Your task to perform on an android device: Play the latest video from the Wall Street Journal Image 0: 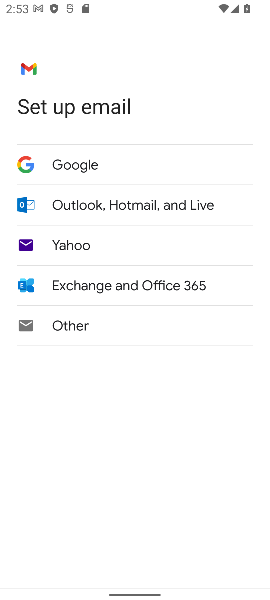
Step 0: press home button
Your task to perform on an android device: Play the latest video from the Wall Street Journal Image 1: 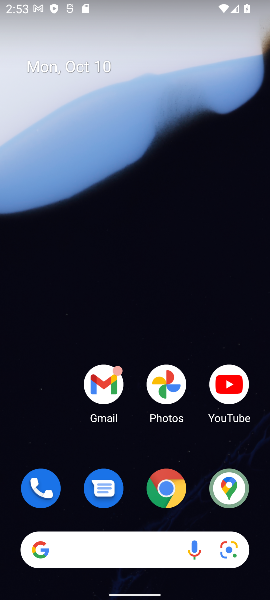
Step 1: click (246, 381)
Your task to perform on an android device: Play the latest video from the Wall Street Journal Image 2: 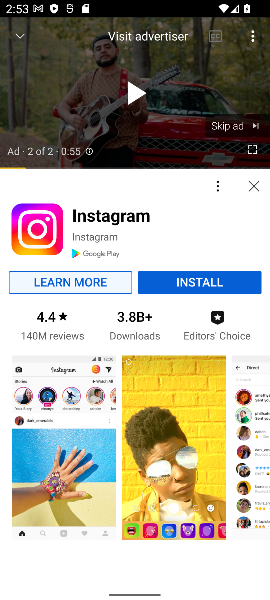
Step 2: click (15, 38)
Your task to perform on an android device: Play the latest video from the Wall Street Journal Image 3: 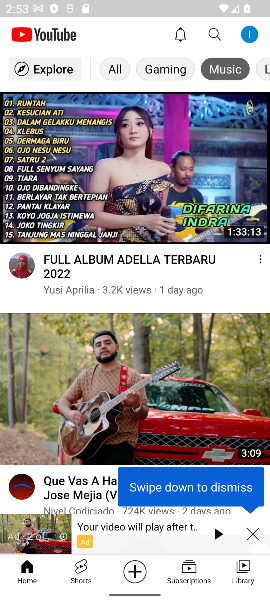
Step 3: click (210, 44)
Your task to perform on an android device: Play the latest video from the Wall Street Journal Image 4: 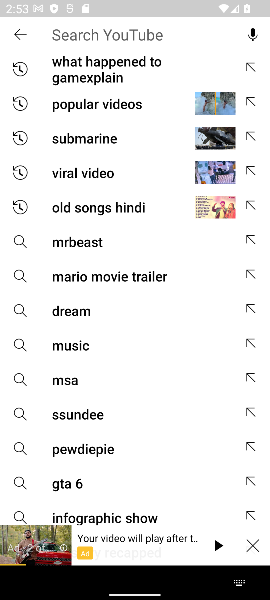
Step 4: type "Wall Street Journal"
Your task to perform on an android device: Play the latest video from the Wall Street Journal Image 5: 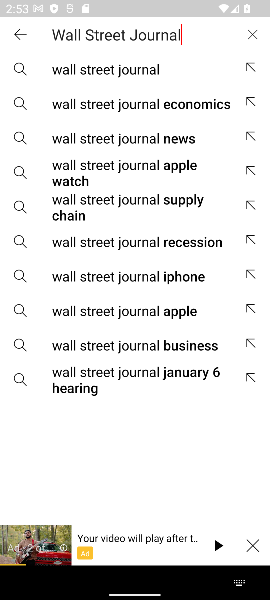
Step 5: click (146, 70)
Your task to perform on an android device: Play the latest video from the Wall Street Journal Image 6: 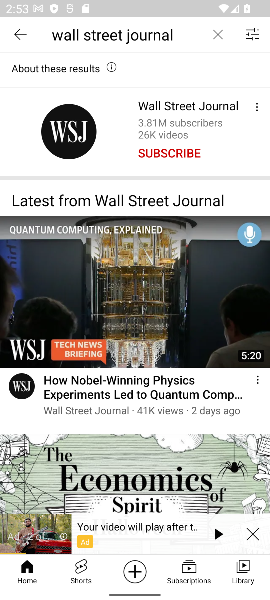
Step 6: click (175, 115)
Your task to perform on an android device: Play the latest video from the Wall Street Journal Image 7: 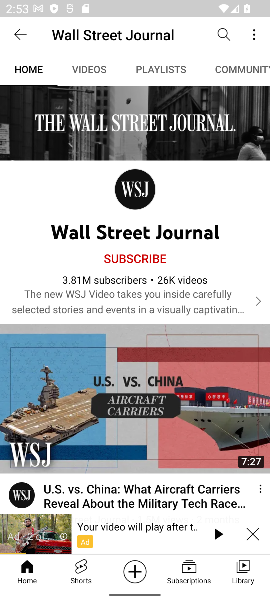
Step 7: click (66, 56)
Your task to perform on an android device: Play the latest video from the Wall Street Journal Image 8: 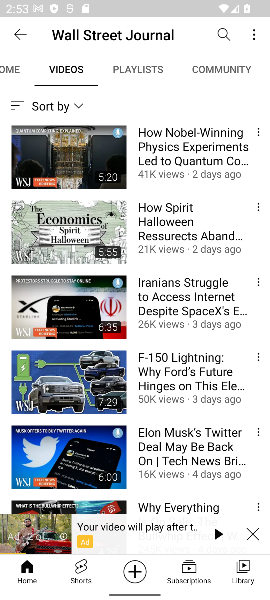
Step 8: click (78, 182)
Your task to perform on an android device: Play the latest video from the Wall Street Journal Image 9: 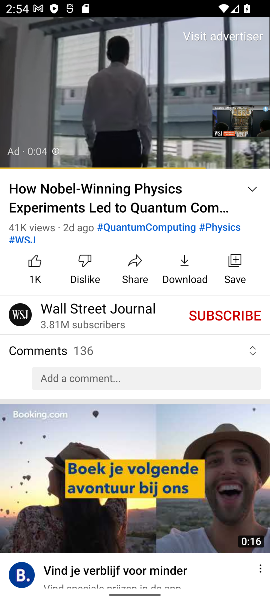
Step 9: click (123, 91)
Your task to perform on an android device: Play the latest video from the Wall Street Journal Image 10: 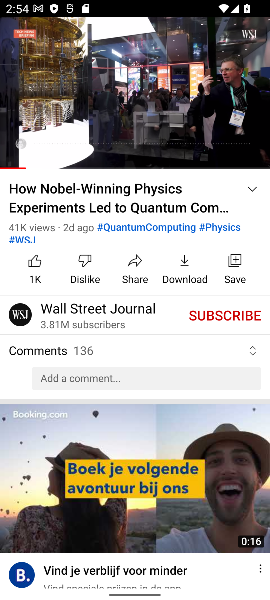
Step 10: click (124, 83)
Your task to perform on an android device: Play the latest video from the Wall Street Journal Image 11: 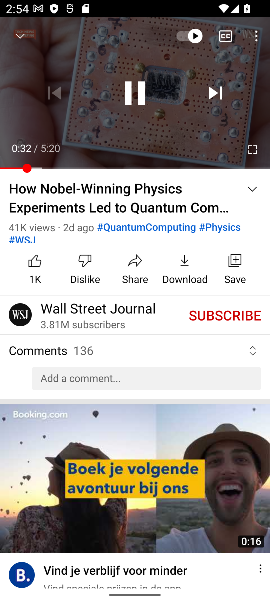
Step 11: click (128, 93)
Your task to perform on an android device: Play the latest video from the Wall Street Journal Image 12: 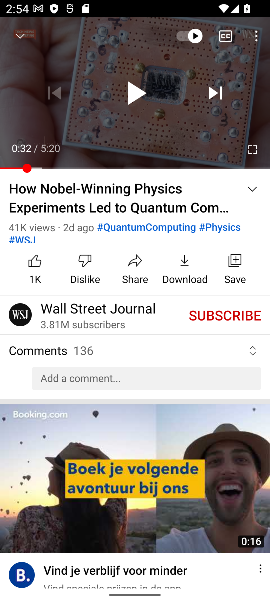
Step 12: task complete